Your task to perform on an android device: open app "Skype" (install if not already installed) Image 0: 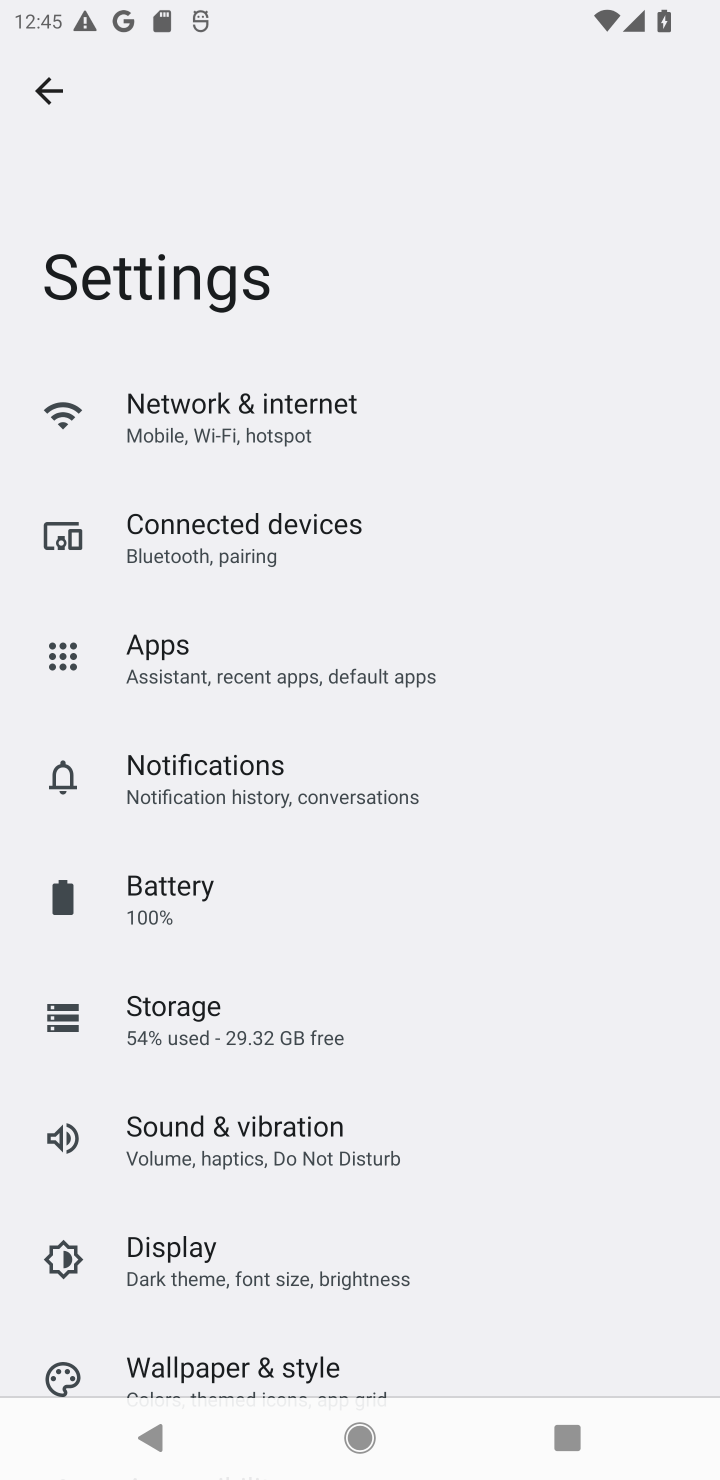
Step 0: press home button
Your task to perform on an android device: open app "Skype" (install if not already installed) Image 1: 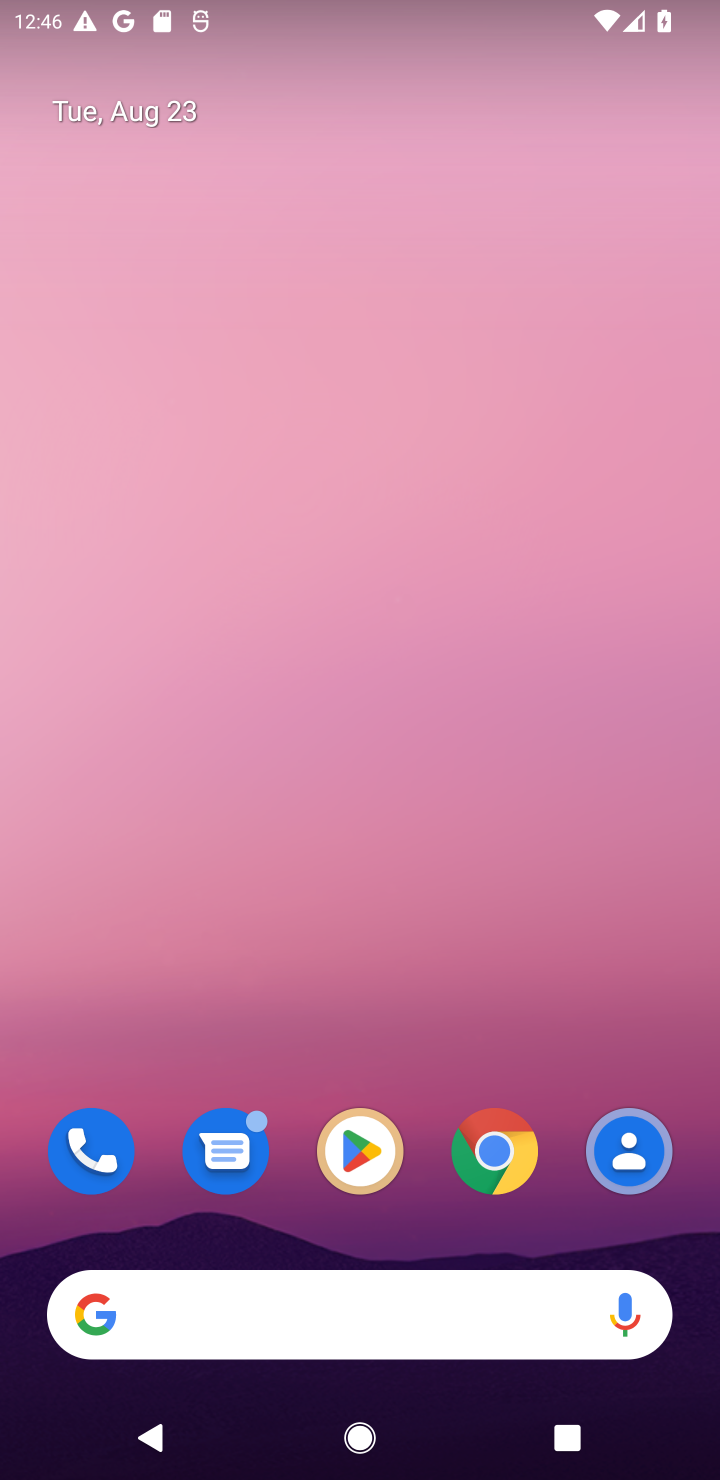
Step 1: click (321, 1144)
Your task to perform on an android device: open app "Skype" (install if not already installed) Image 2: 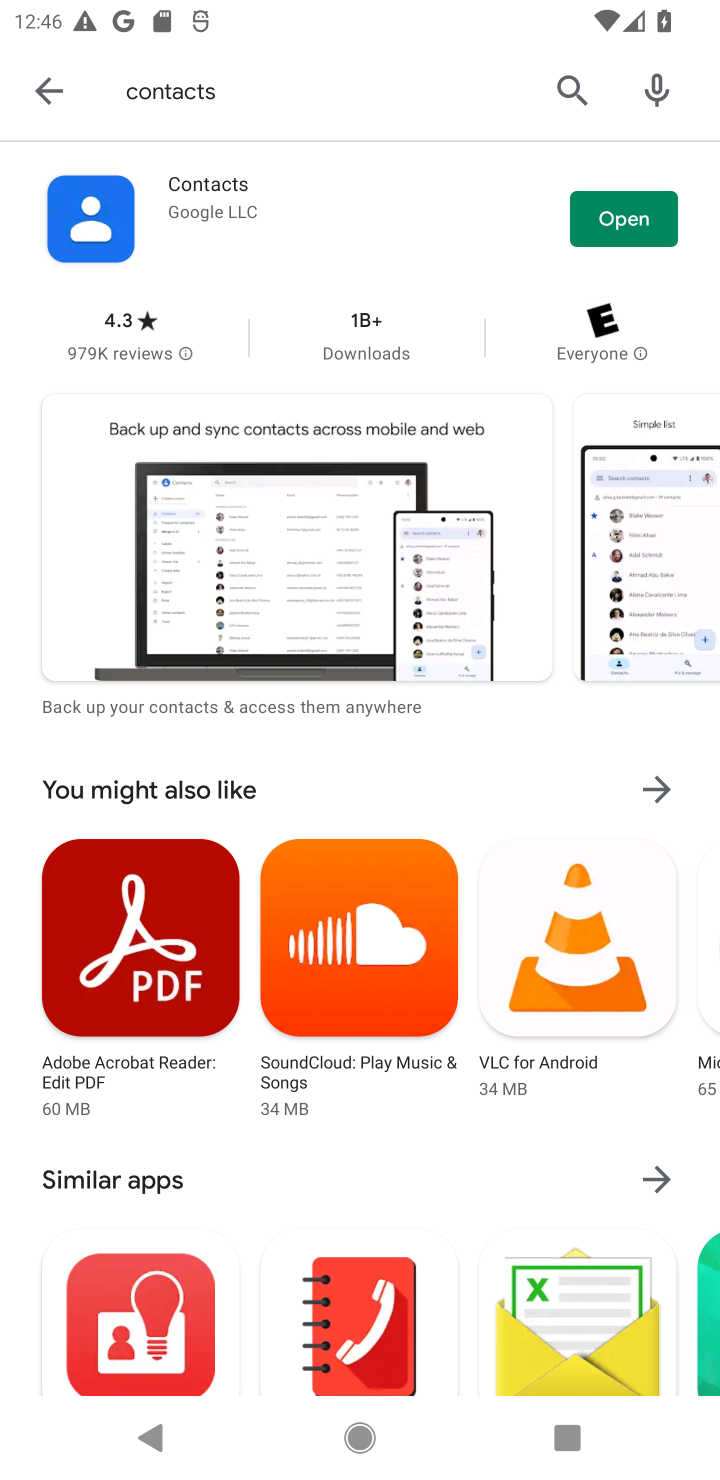
Step 2: click (564, 73)
Your task to perform on an android device: open app "Skype" (install if not already installed) Image 3: 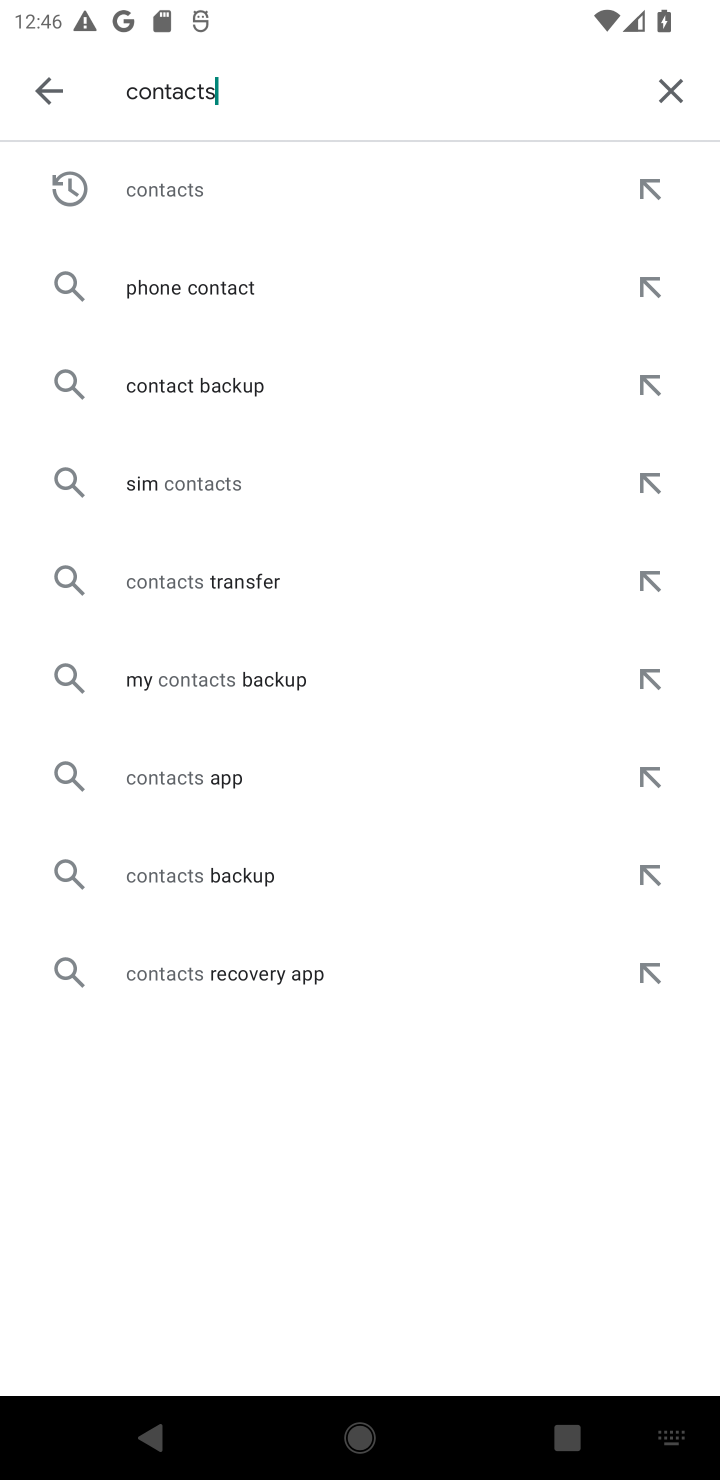
Step 3: click (645, 78)
Your task to perform on an android device: open app "Skype" (install if not already installed) Image 4: 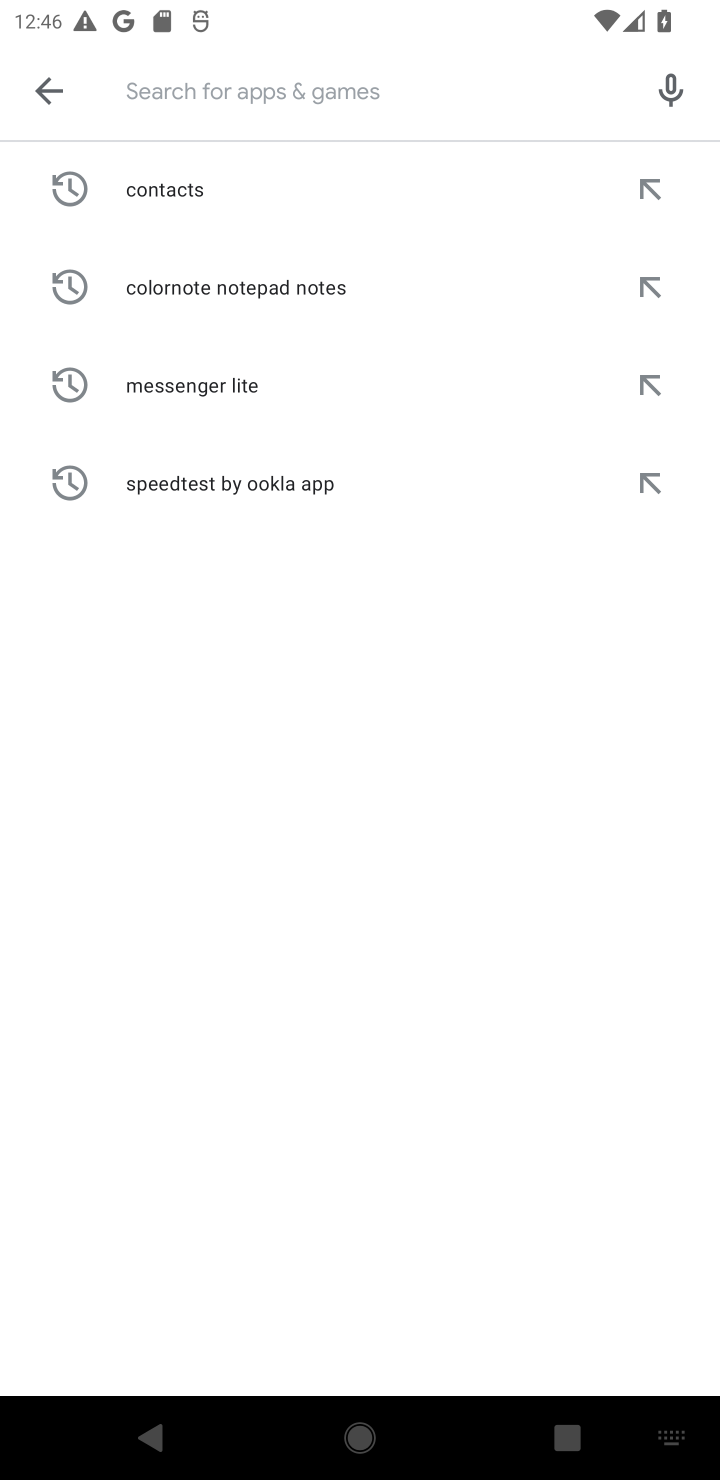
Step 4: type "Skyp"
Your task to perform on an android device: open app "Skype" (install if not already installed) Image 5: 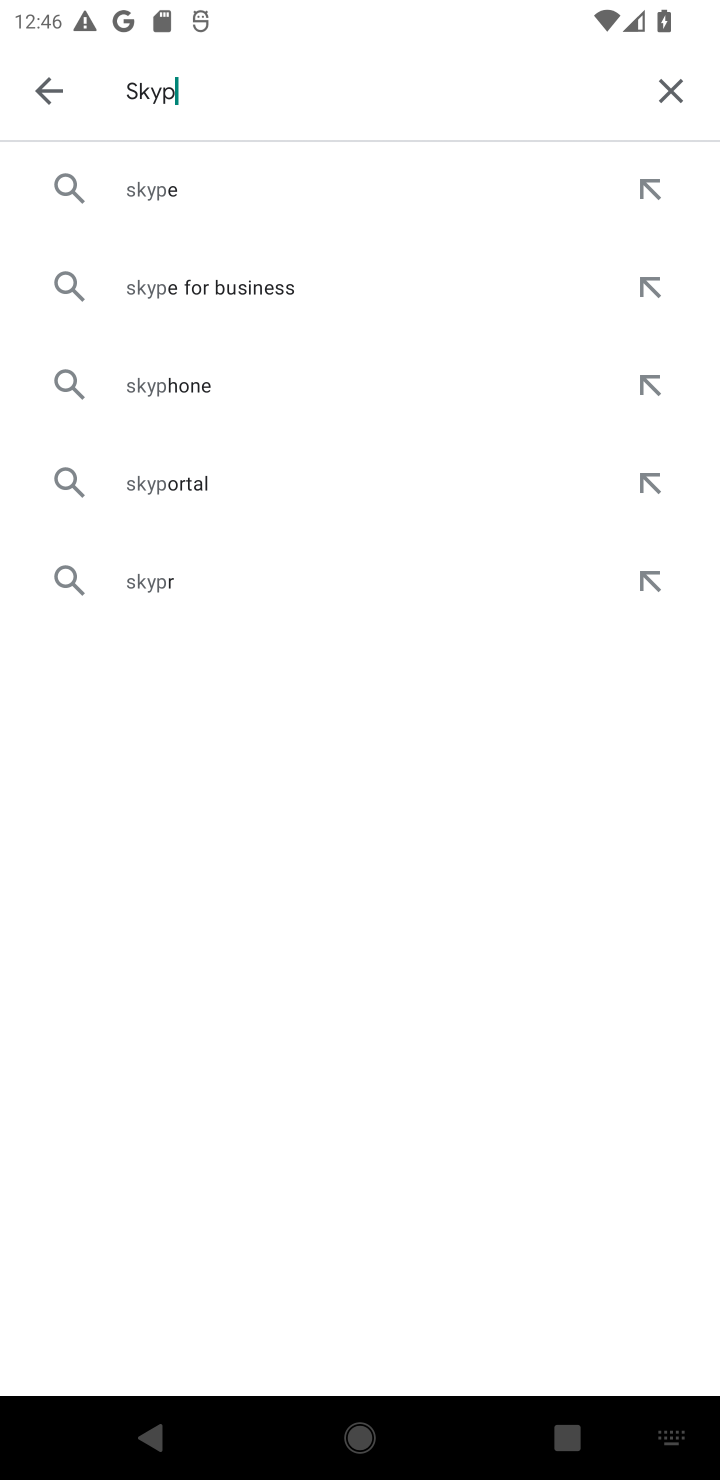
Step 5: click (187, 175)
Your task to perform on an android device: open app "Skype" (install if not already installed) Image 6: 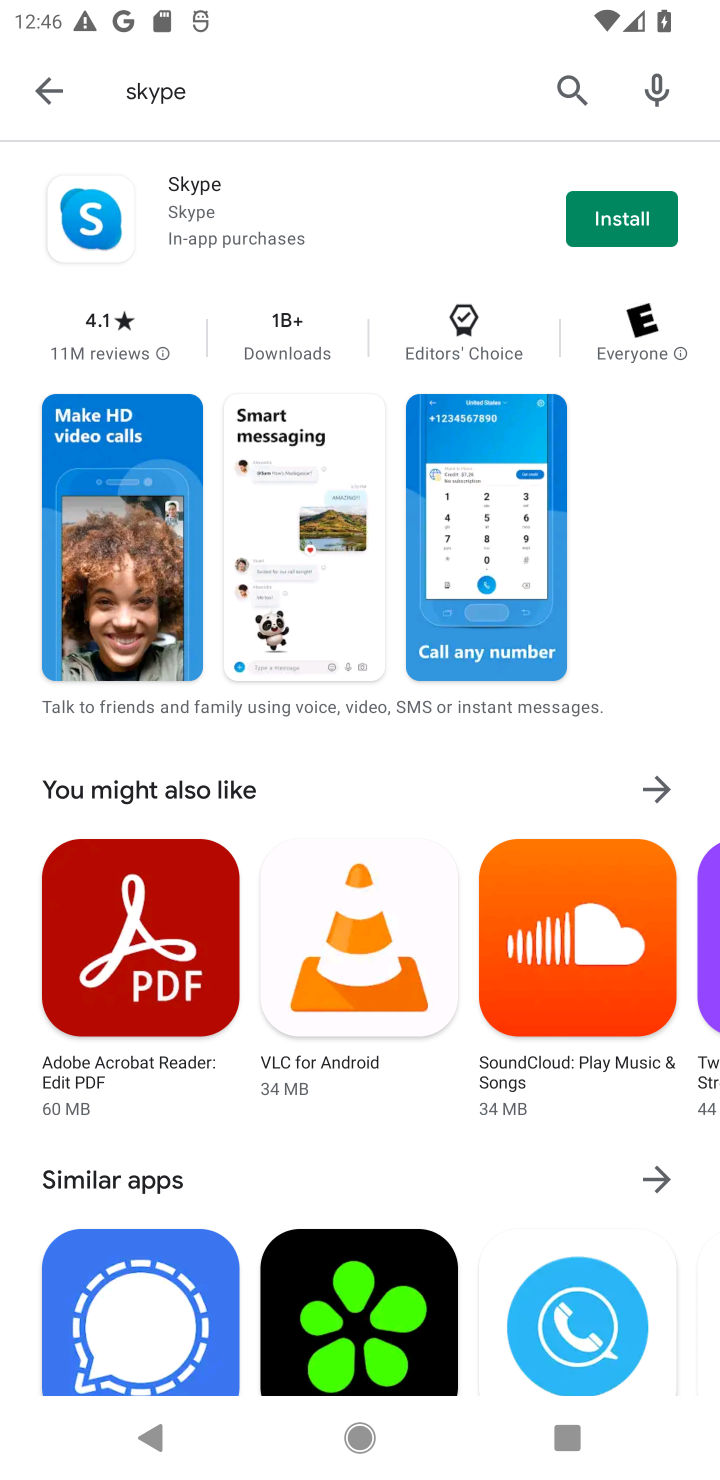
Step 6: click (620, 225)
Your task to perform on an android device: open app "Skype" (install if not already installed) Image 7: 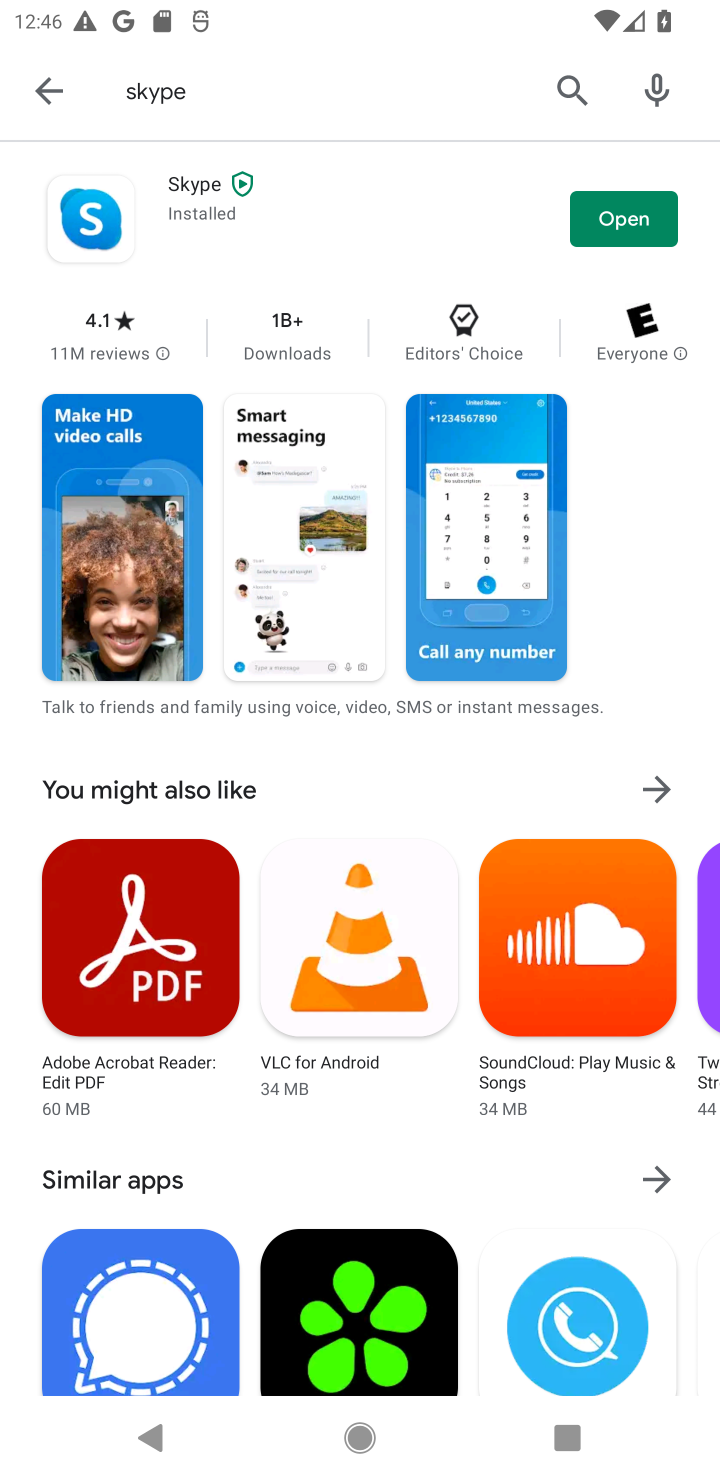
Step 7: click (620, 211)
Your task to perform on an android device: open app "Skype" (install if not already installed) Image 8: 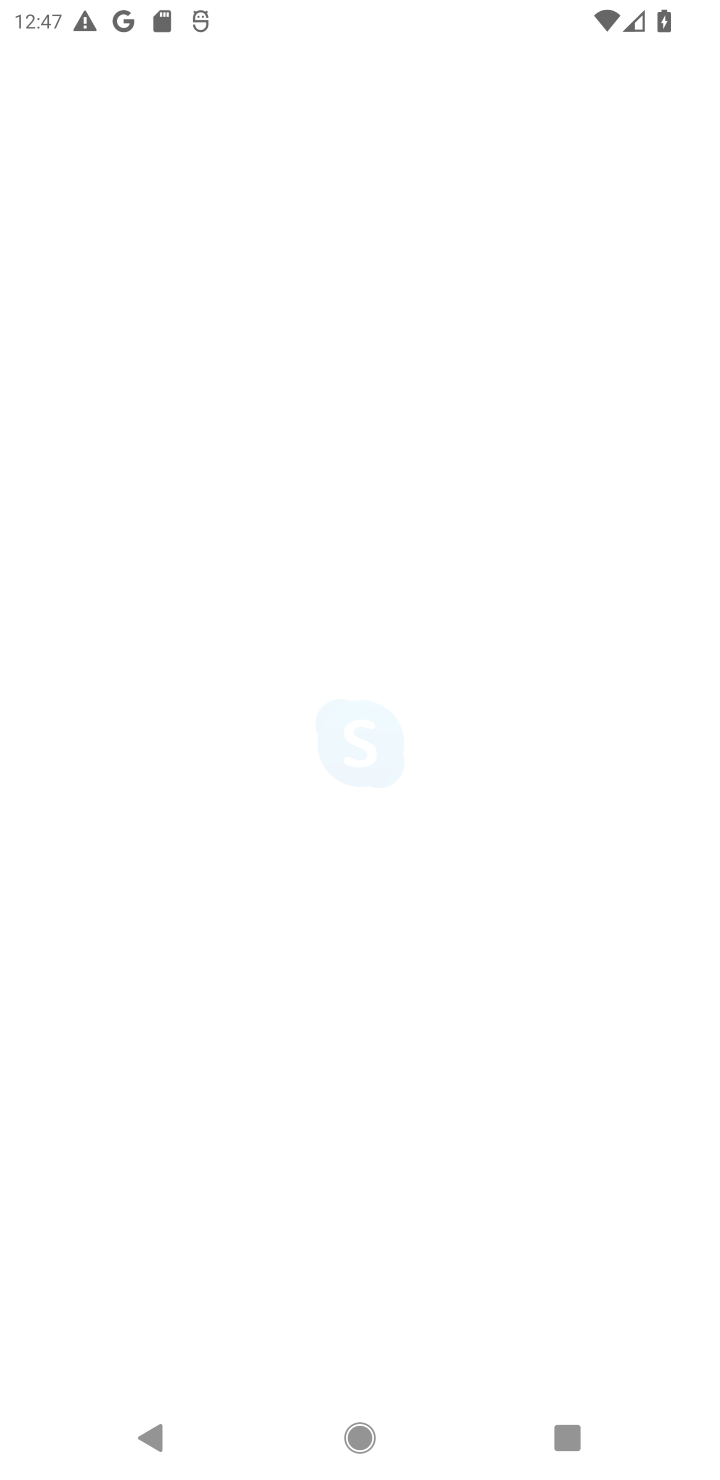
Step 8: task complete